Your task to perform on an android device: View the shopping cart on target. Add "razer nari" to the cart on target, then select checkout. Image 0: 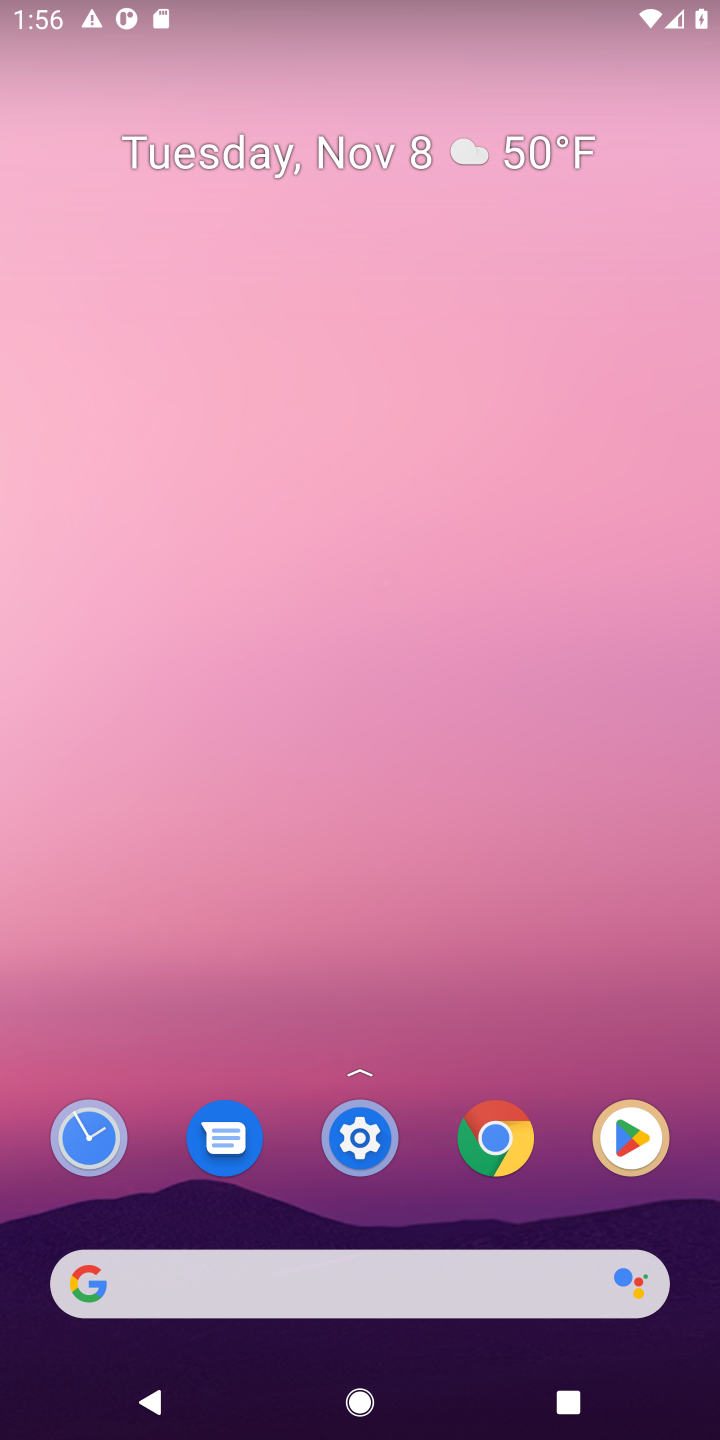
Step 0: click (396, 1321)
Your task to perform on an android device: View the shopping cart on target. Add "razer nari" to the cart on target, then select checkout. Image 1: 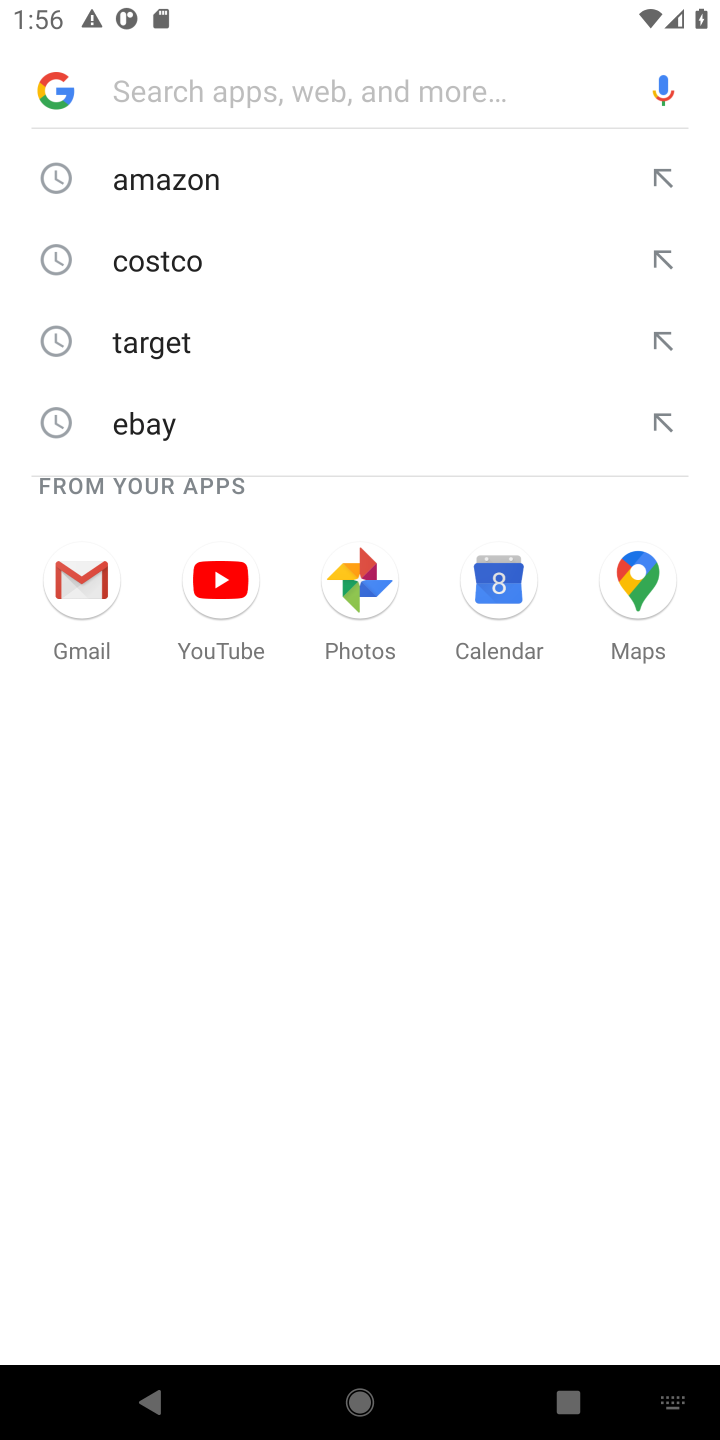
Step 1: click (395, 345)
Your task to perform on an android device: View the shopping cart on target. Add "razer nari" to the cart on target, then select checkout. Image 2: 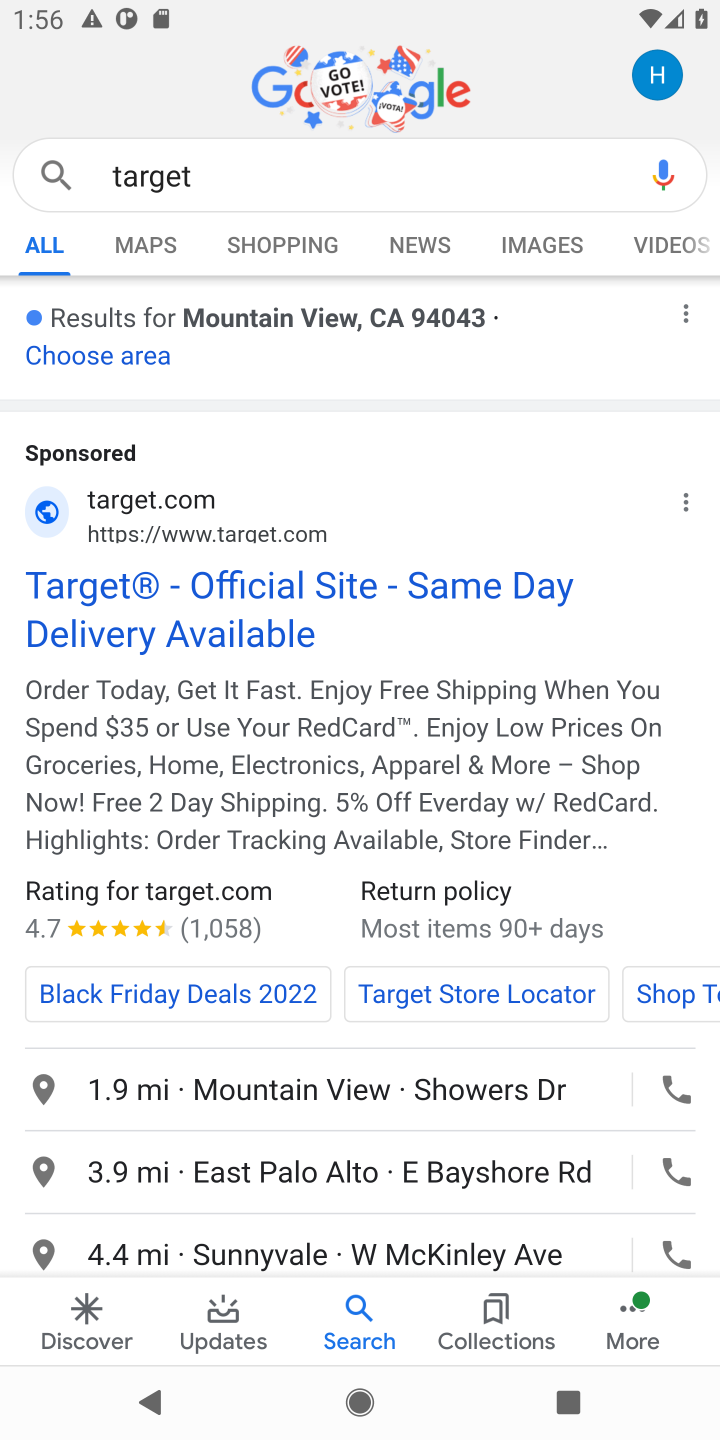
Step 2: click (383, 560)
Your task to perform on an android device: View the shopping cart on target. Add "razer nari" to the cart on target, then select checkout. Image 3: 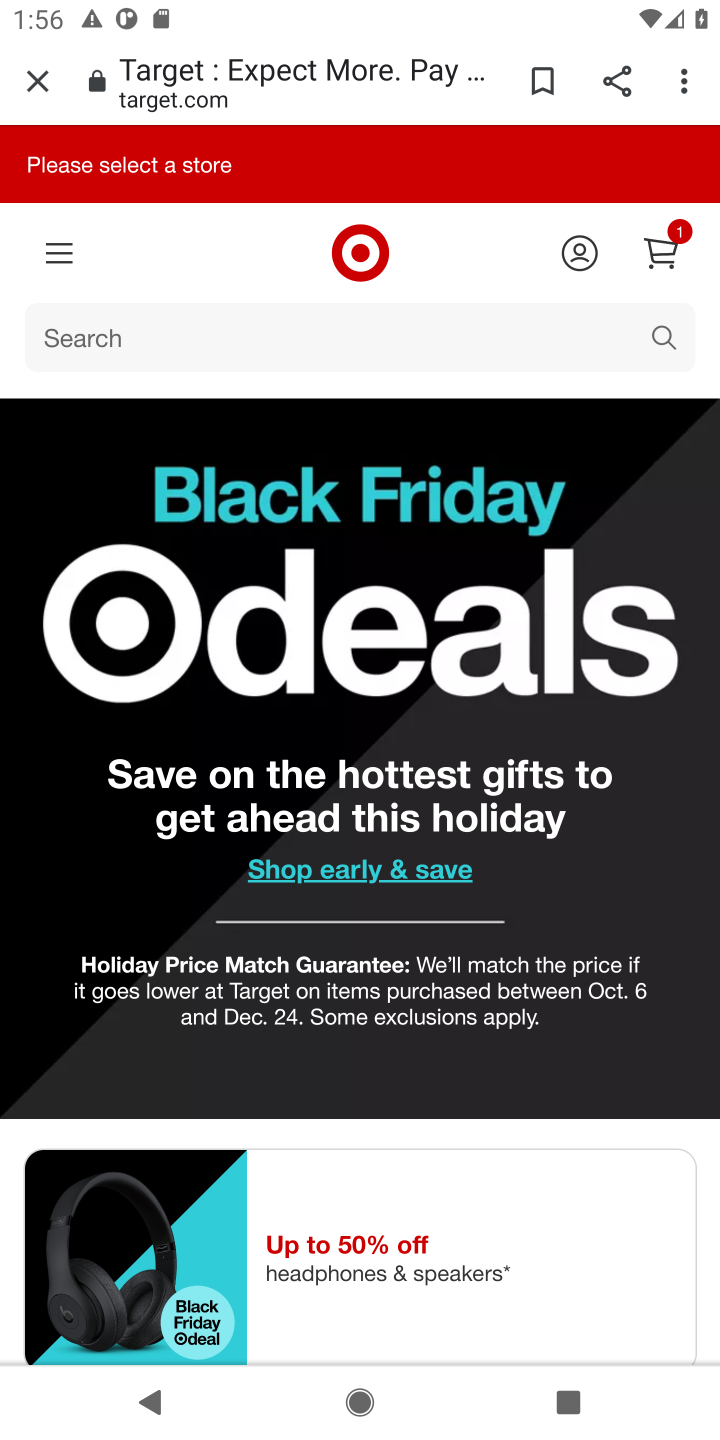
Step 3: click (418, 345)
Your task to perform on an android device: View the shopping cart on target. Add "razer nari" to the cart on target, then select checkout. Image 4: 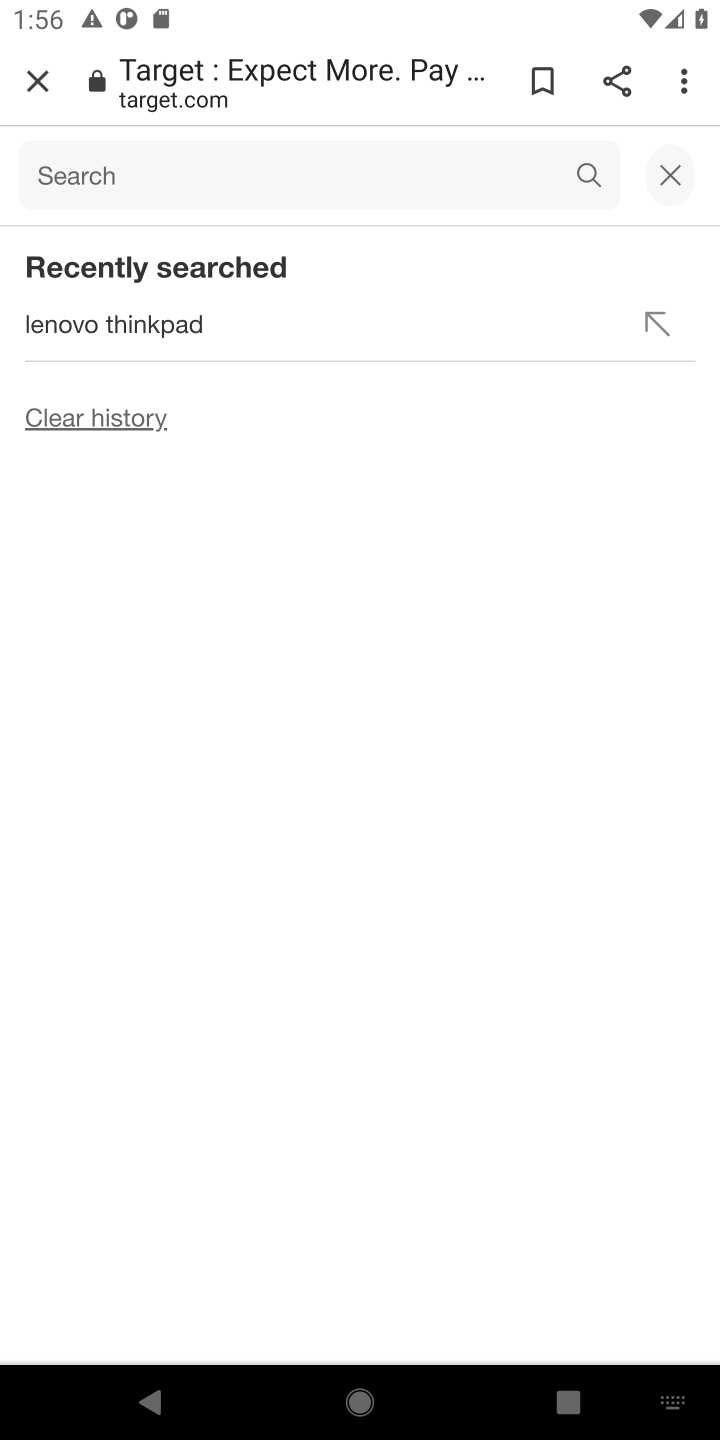
Step 4: type "razer nari"
Your task to perform on an android device: View the shopping cart on target. Add "razer nari" to the cart on target, then select checkout. Image 5: 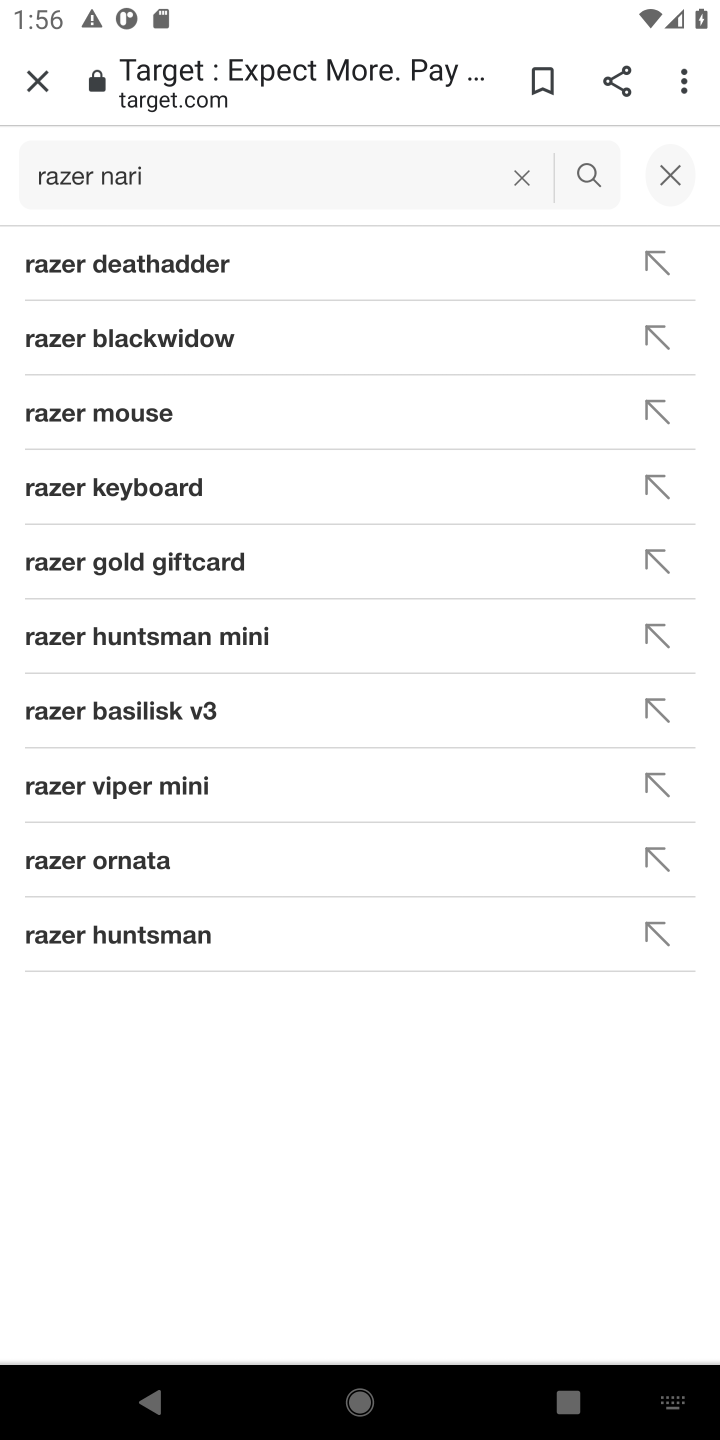
Step 5: click (597, 180)
Your task to perform on an android device: View the shopping cart on target. Add "razer nari" to the cart on target, then select checkout. Image 6: 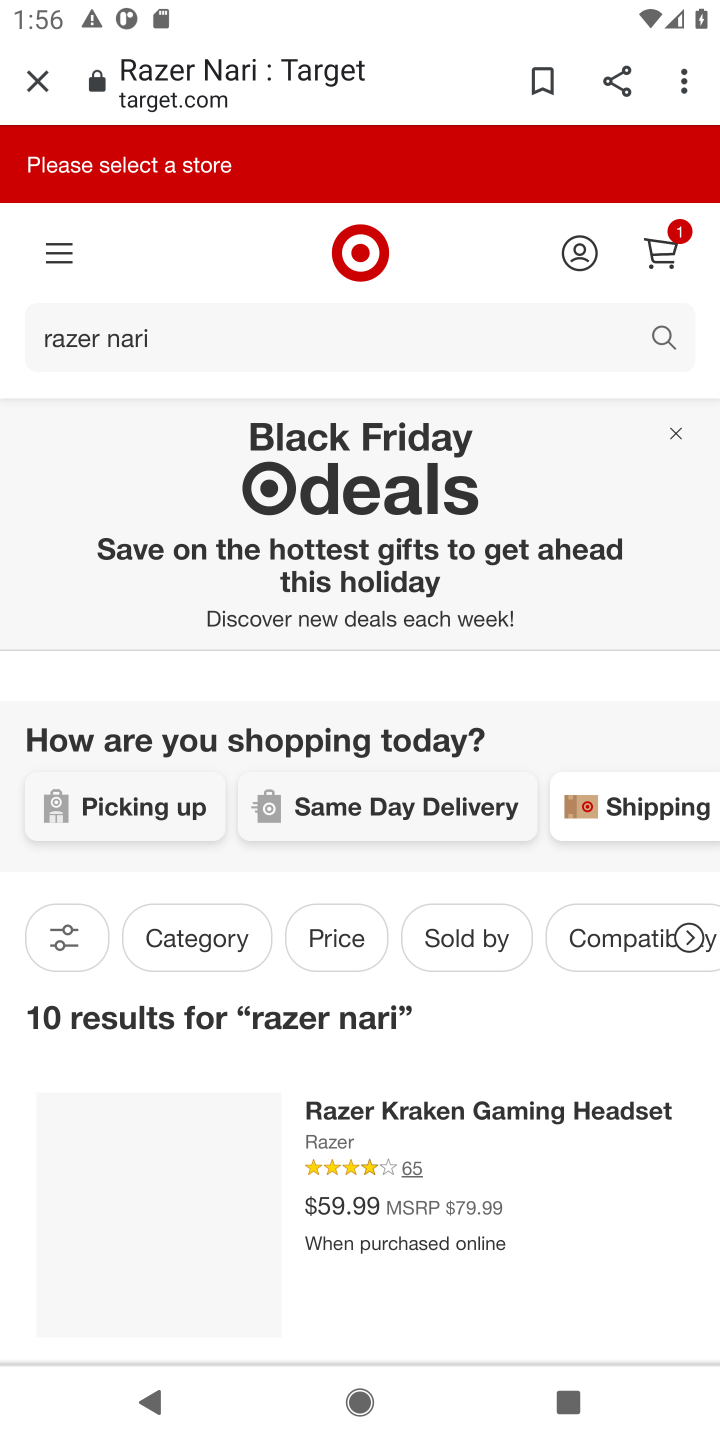
Step 6: drag from (423, 1157) to (383, 772)
Your task to perform on an android device: View the shopping cart on target. Add "razer nari" to the cart on target, then select checkout. Image 7: 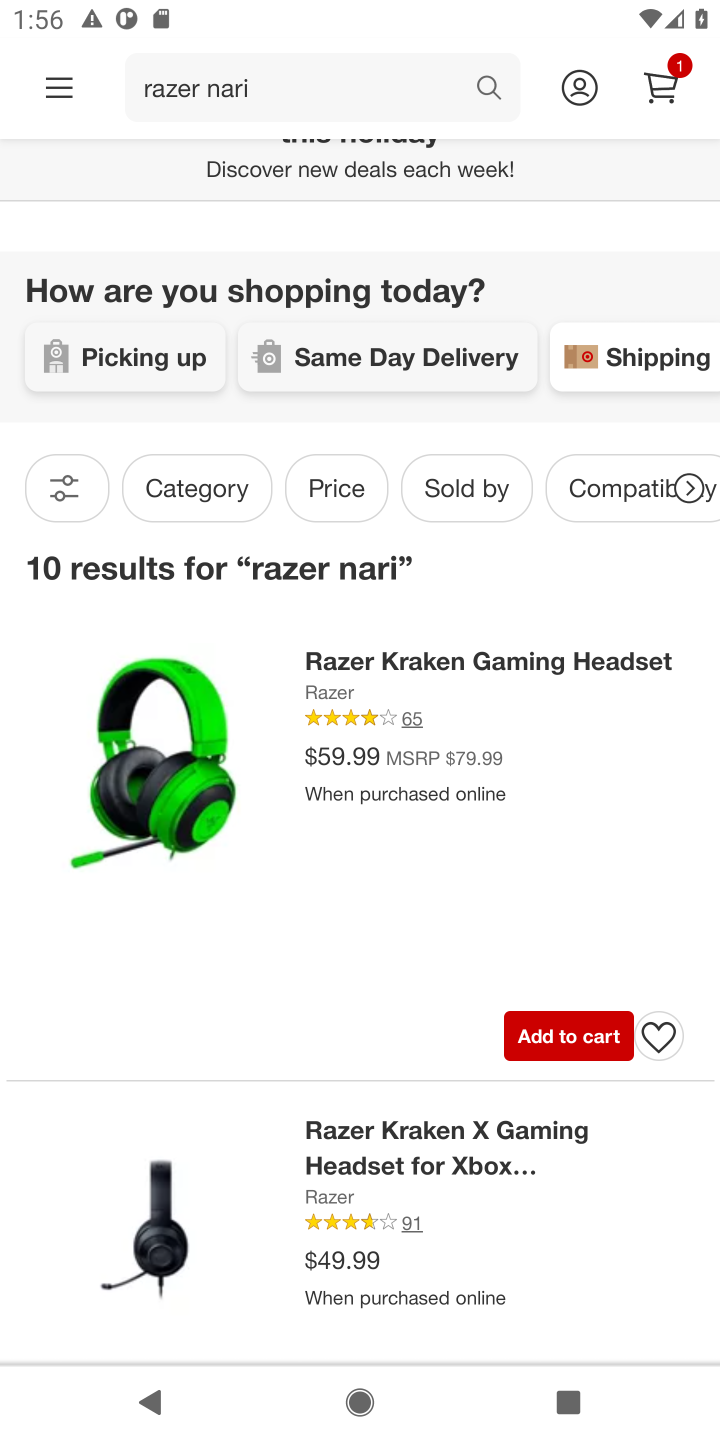
Step 7: click (548, 1037)
Your task to perform on an android device: View the shopping cart on target. Add "razer nari" to the cart on target, then select checkout. Image 8: 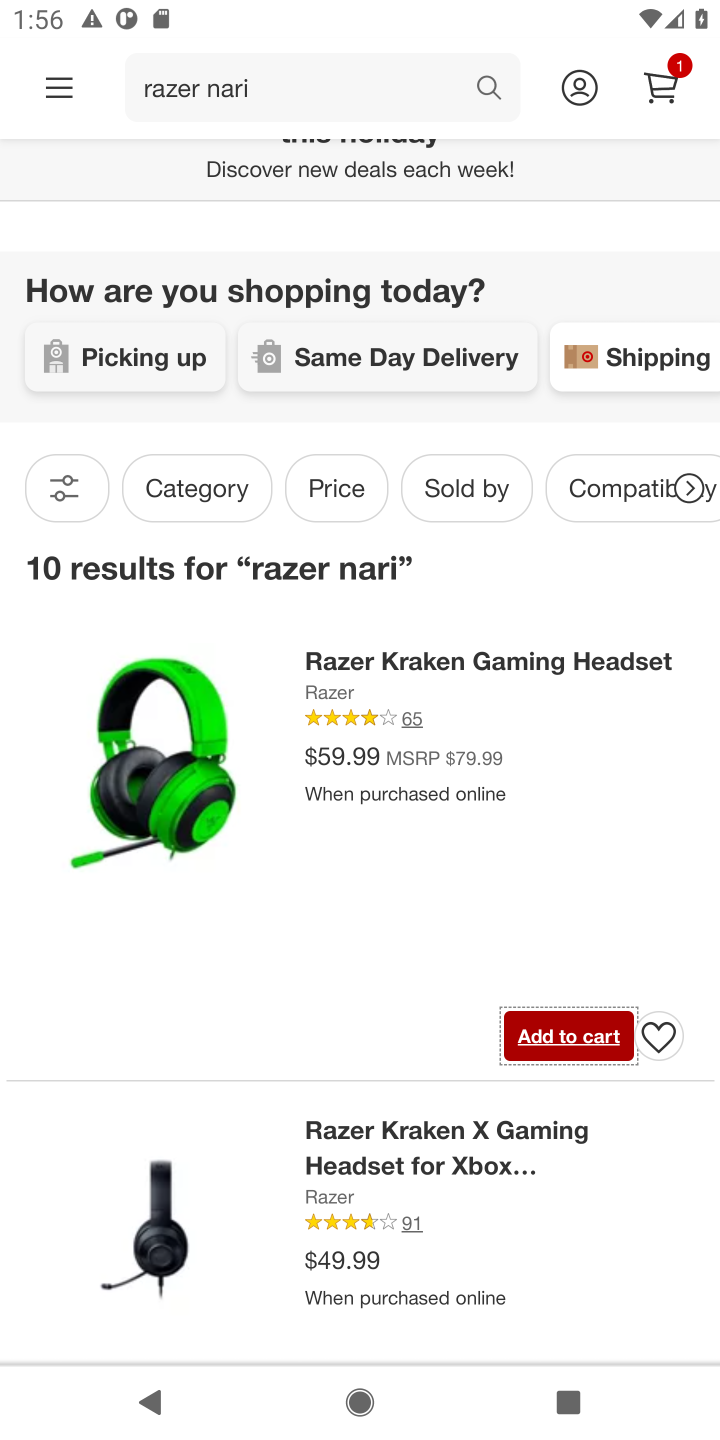
Step 8: task complete